Your task to perform on an android device: Go to internet settings Image 0: 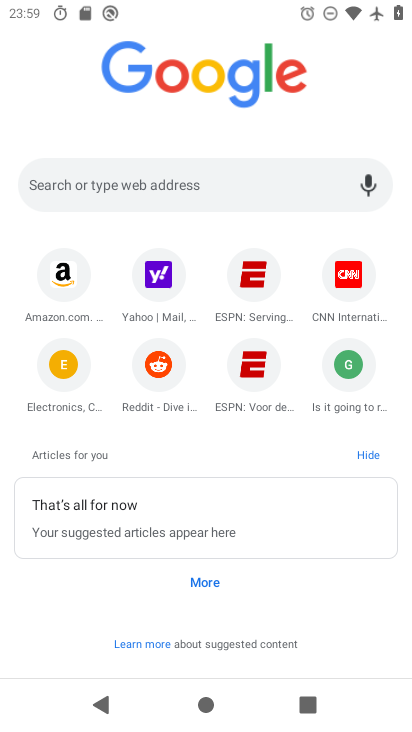
Step 0: drag from (304, 111) to (292, 353)
Your task to perform on an android device: Go to internet settings Image 1: 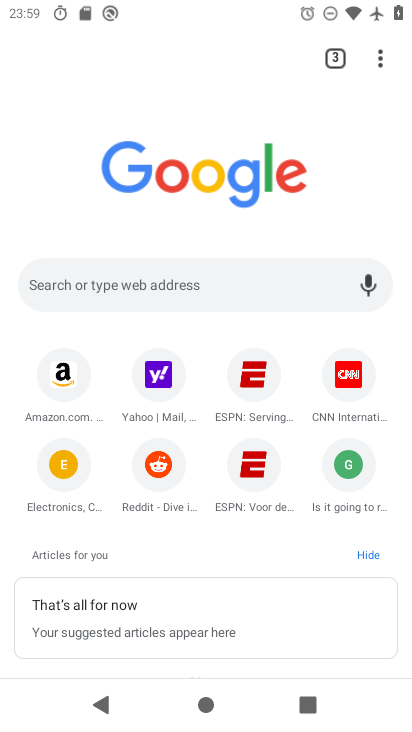
Step 1: press home button
Your task to perform on an android device: Go to internet settings Image 2: 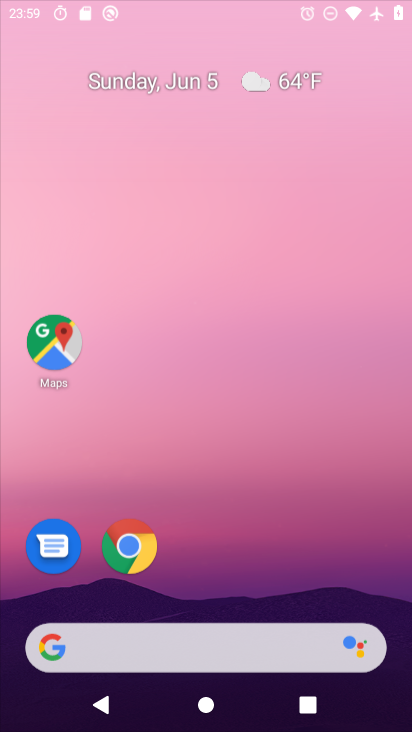
Step 2: drag from (234, 554) to (260, 189)
Your task to perform on an android device: Go to internet settings Image 3: 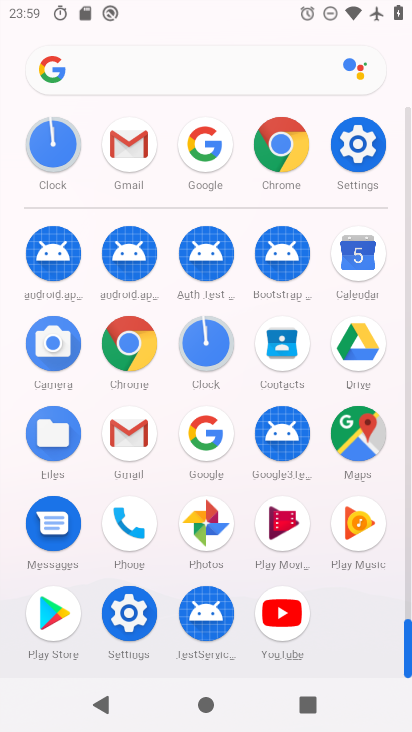
Step 3: click (353, 143)
Your task to perform on an android device: Go to internet settings Image 4: 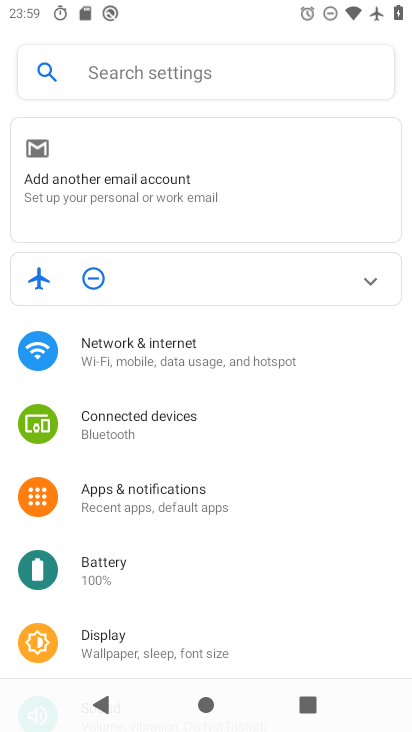
Step 4: click (163, 353)
Your task to perform on an android device: Go to internet settings Image 5: 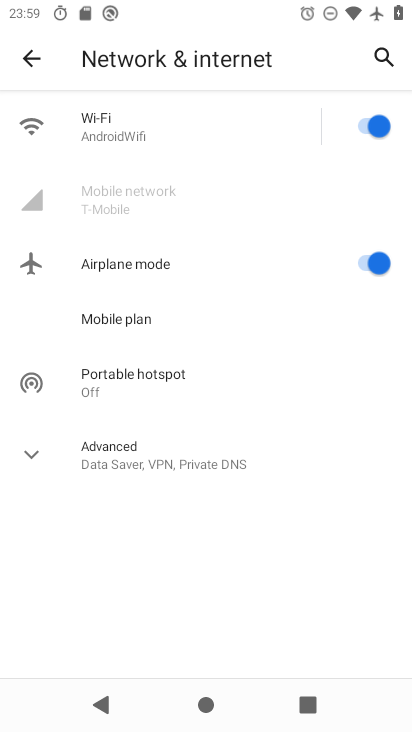
Step 5: task complete